Your task to perform on an android device: move an email to a new category in the gmail app Image 0: 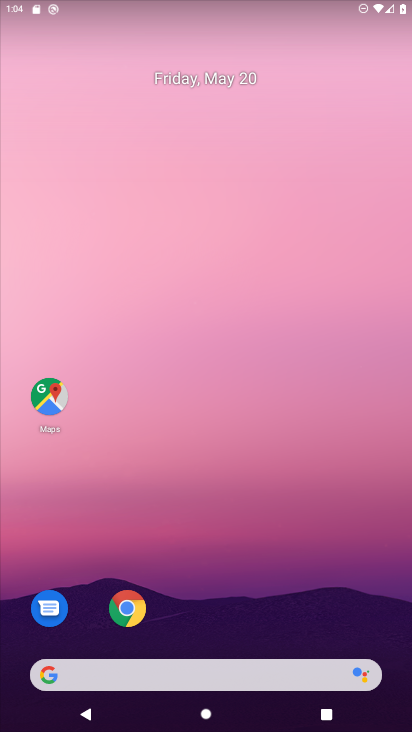
Step 0: drag from (237, 595) to (284, 100)
Your task to perform on an android device: move an email to a new category in the gmail app Image 1: 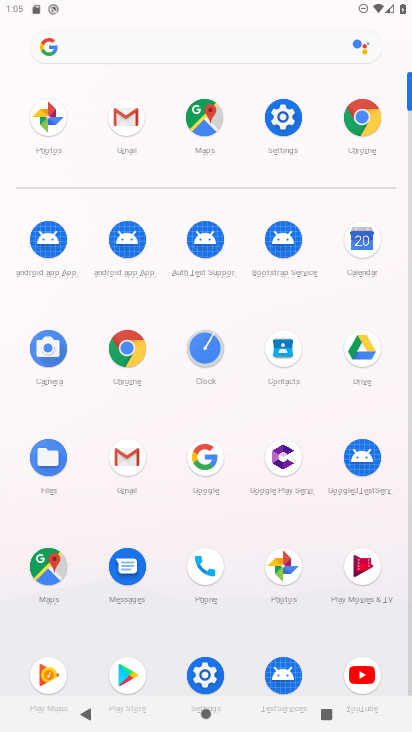
Step 1: click (114, 115)
Your task to perform on an android device: move an email to a new category in the gmail app Image 2: 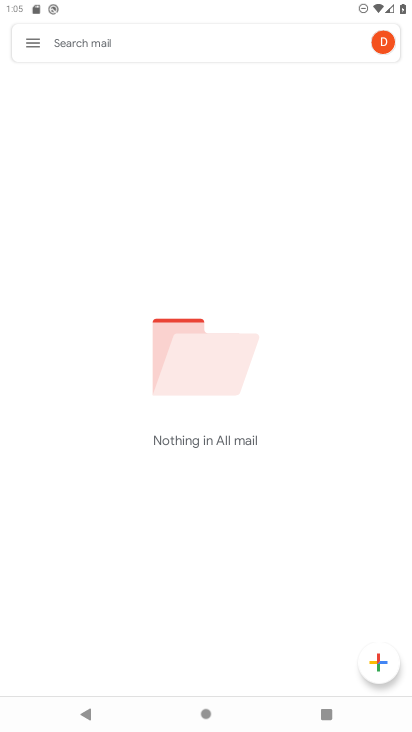
Step 2: click (40, 39)
Your task to perform on an android device: move an email to a new category in the gmail app Image 3: 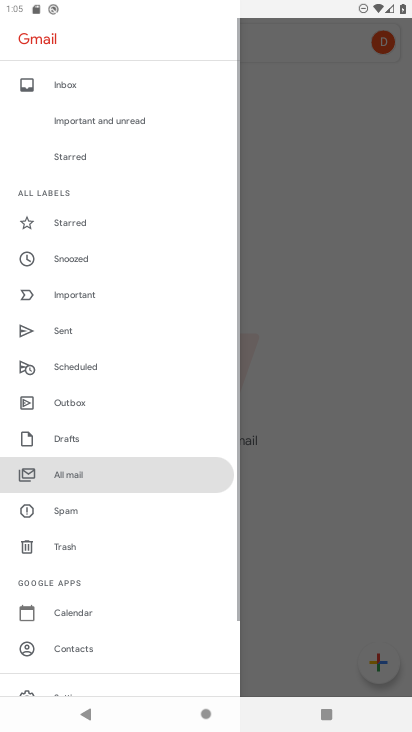
Step 3: task complete